Your task to perform on an android device: uninstall "The Home Depot" Image 0: 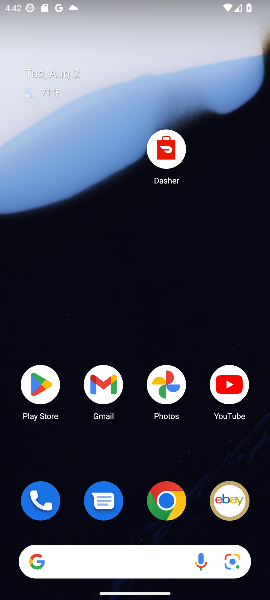
Step 0: click (40, 394)
Your task to perform on an android device: uninstall "The Home Depot" Image 1: 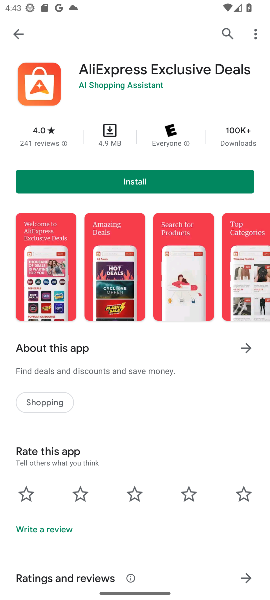
Step 1: click (223, 29)
Your task to perform on an android device: uninstall "The Home Depot" Image 2: 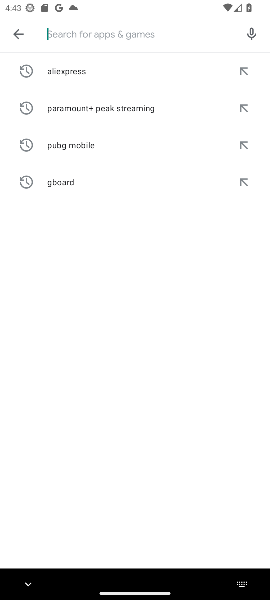
Step 2: type "The Home Depot"
Your task to perform on an android device: uninstall "The Home Depot" Image 3: 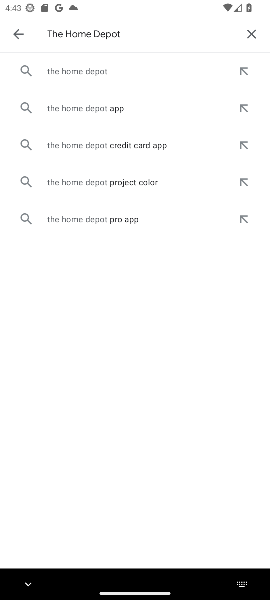
Step 3: click (67, 72)
Your task to perform on an android device: uninstall "The Home Depot" Image 4: 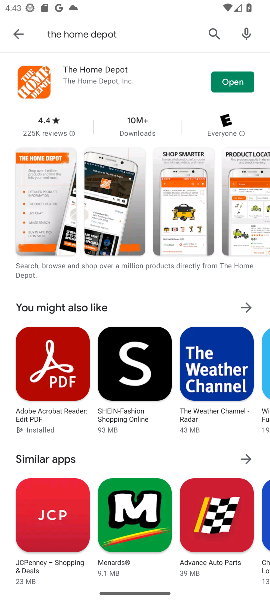
Step 4: click (66, 72)
Your task to perform on an android device: uninstall "The Home Depot" Image 5: 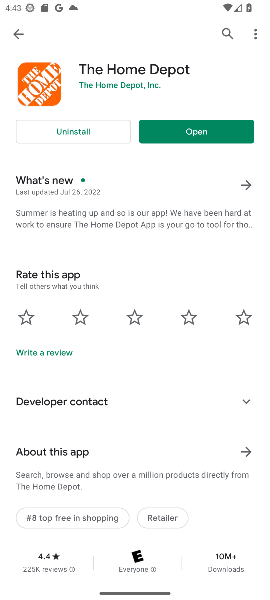
Step 5: click (66, 135)
Your task to perform on an android device: uninstall "The Home Depot" Image 6: 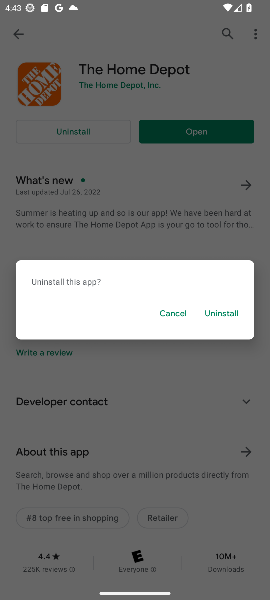
Step 6: click (214, 315)
Your task to perform on an android device: uninstall "The Home Depot" Image 7: 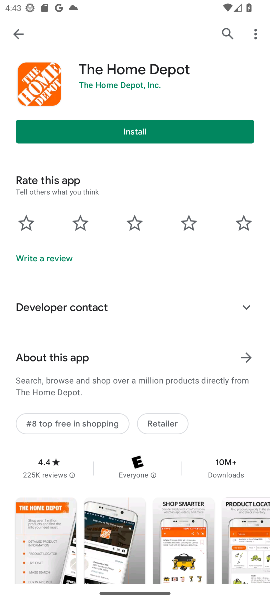
Step 7: task complete